Your task to perform on an android device: Open the settings Image 0: 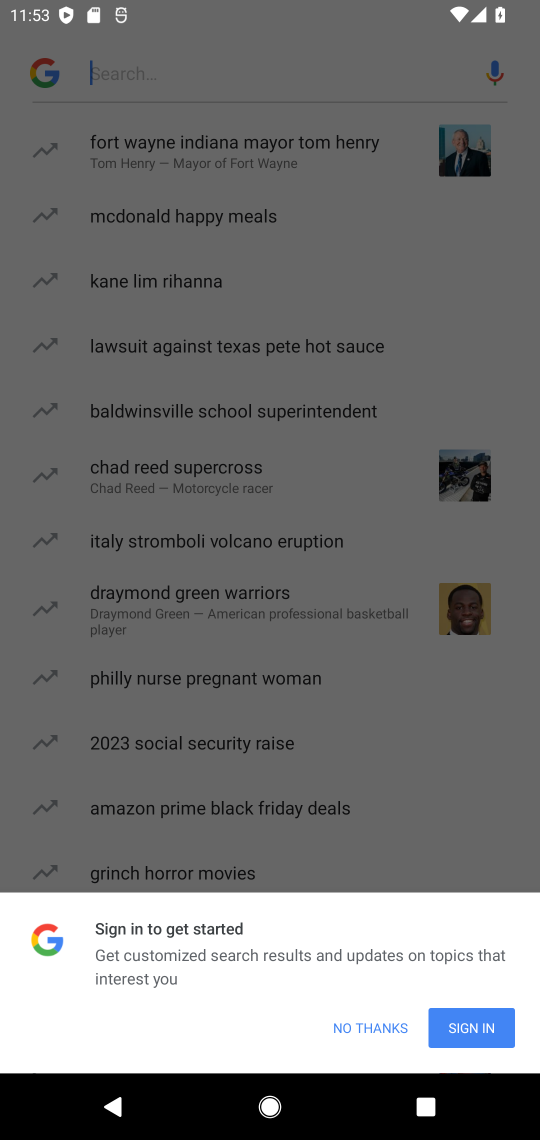
Step 0: press home button
Your task to perform on an android device: Open the settings Image 1: 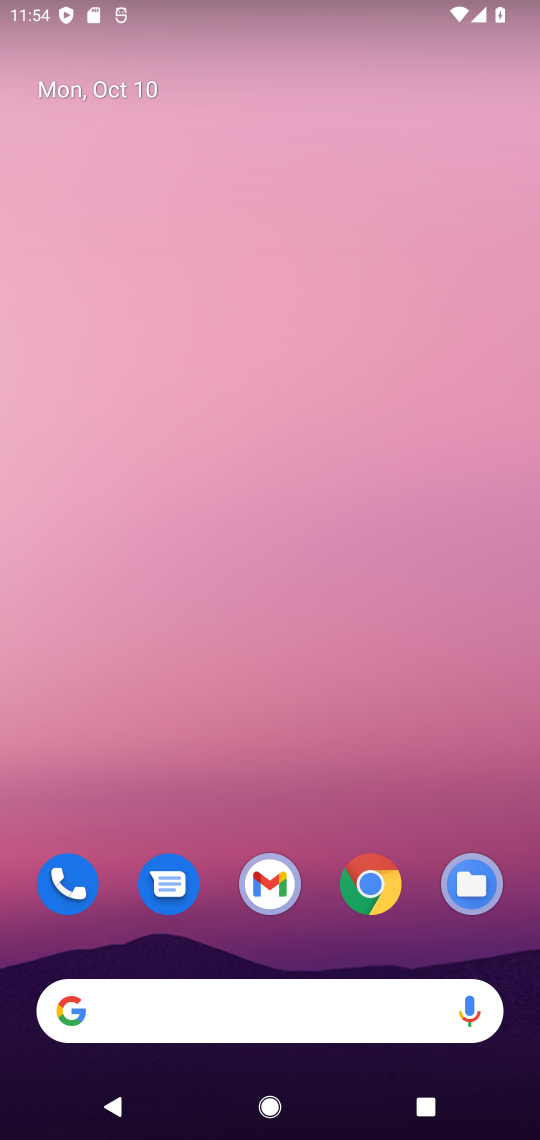
Step 1: drag from (265, 606) to (271, 227)
Your task to perform on an android device: Open the settings Image 2: 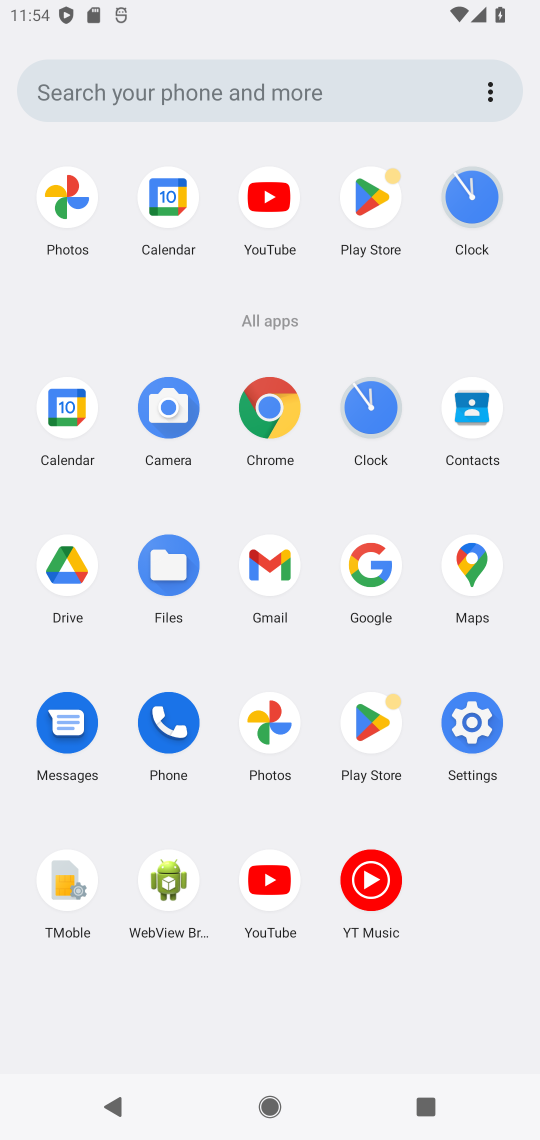
Step 2: click (471, 729)
Your task to perform on an android device: Open the settings Image 3: 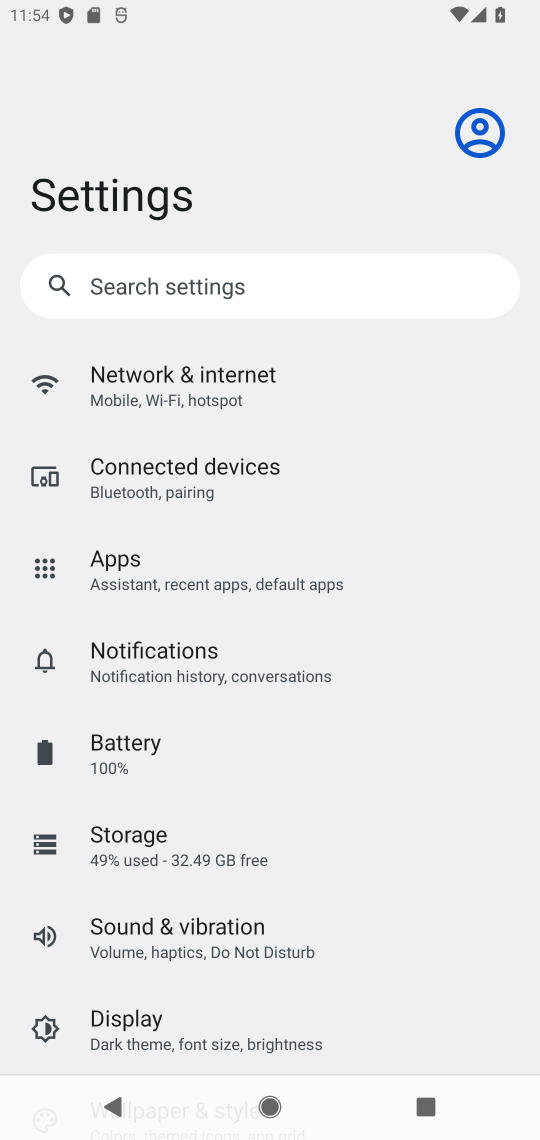
Step 3: task complete